Your task to perform on an android device: uninstall "File Manager" Image 0: 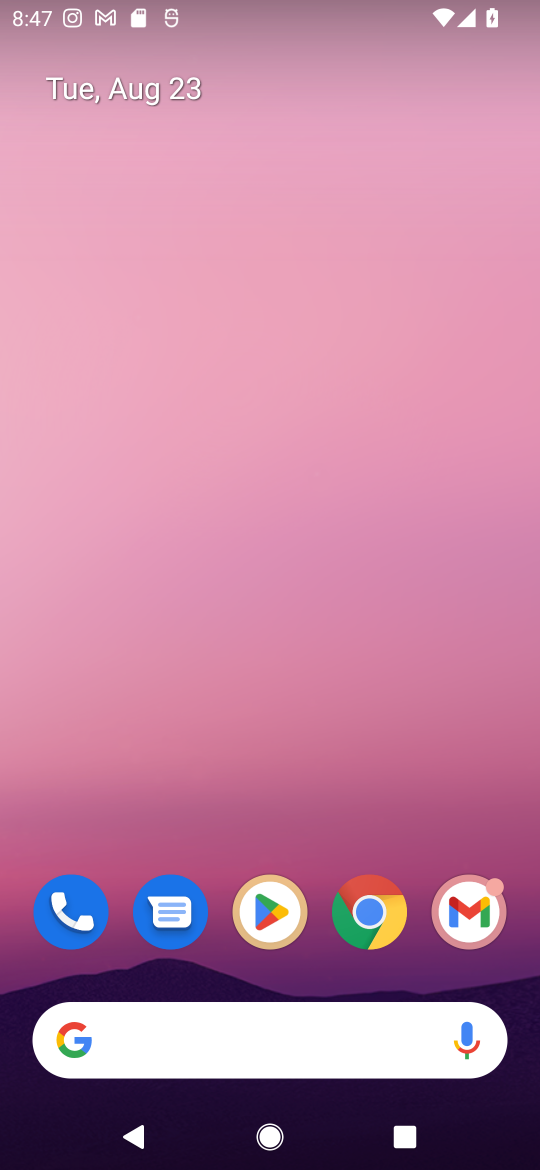
Step 0: click (267, 915)
Your task to perform on an android device: uninstall "File Manager" Image 1: 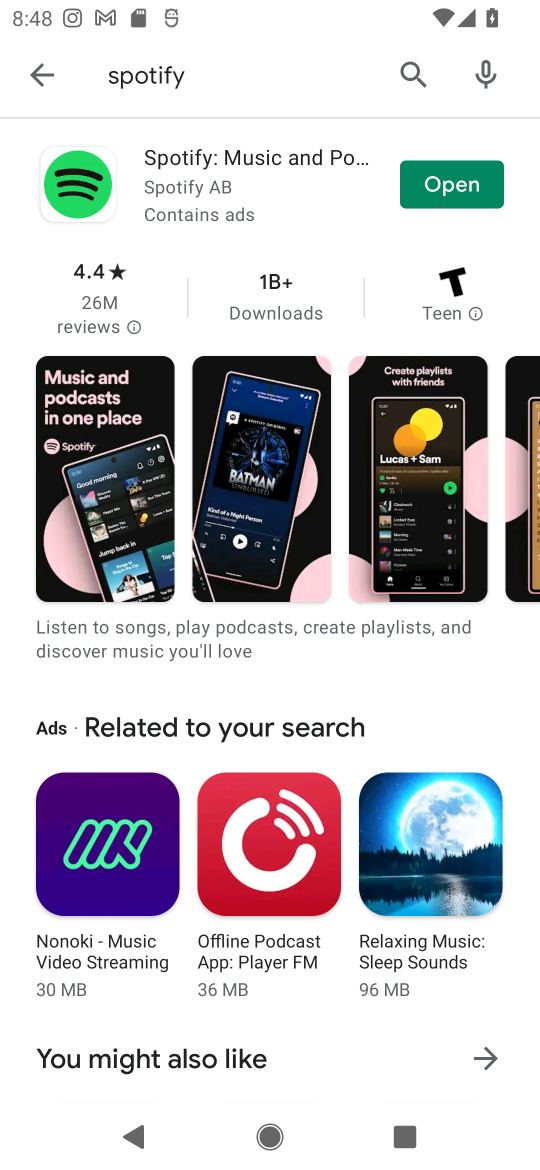
Step 1: click (399, 70)
Your task to perform on an android device: uninstall "File Manager" Image 2: 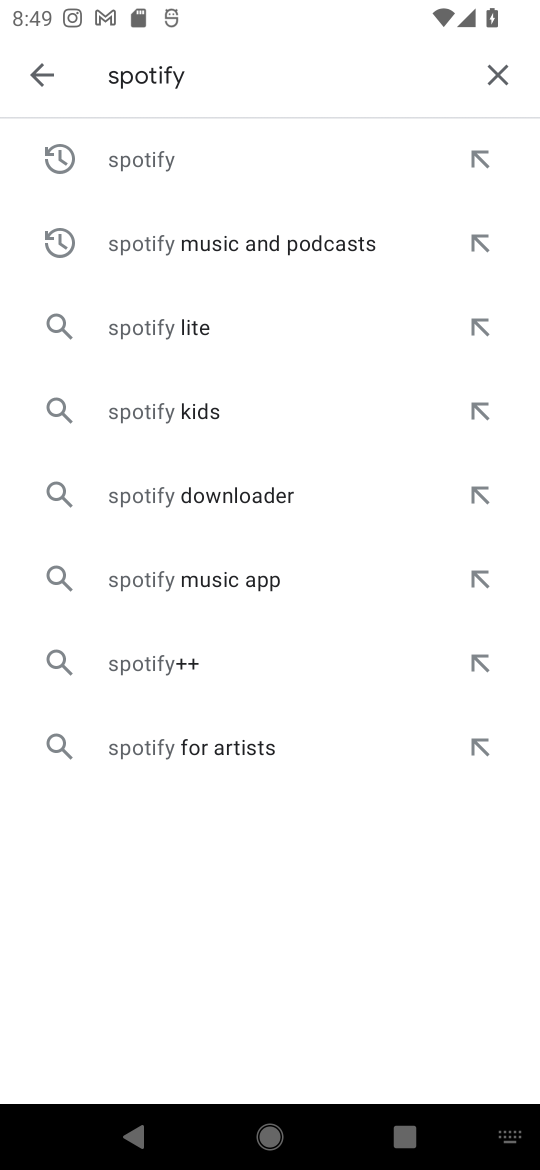
Step 2: click (502, 72)
Your task to perform on an android device: uninstall "File Manager" Image 3: 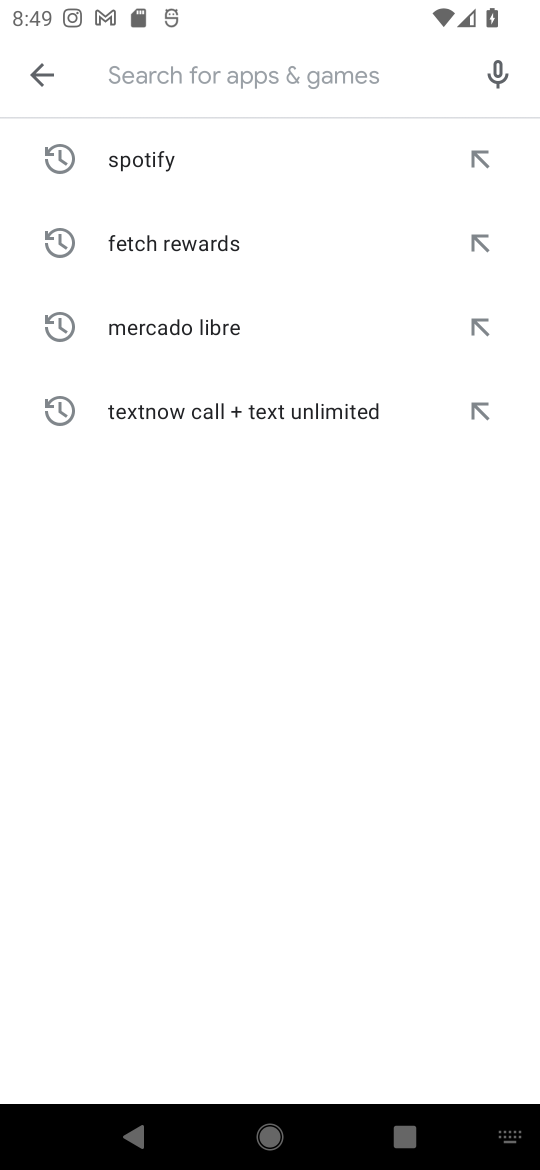
Step 3: type "File Manager"
Your task to perform on an android device: uninstall "File Manager" Image 4: 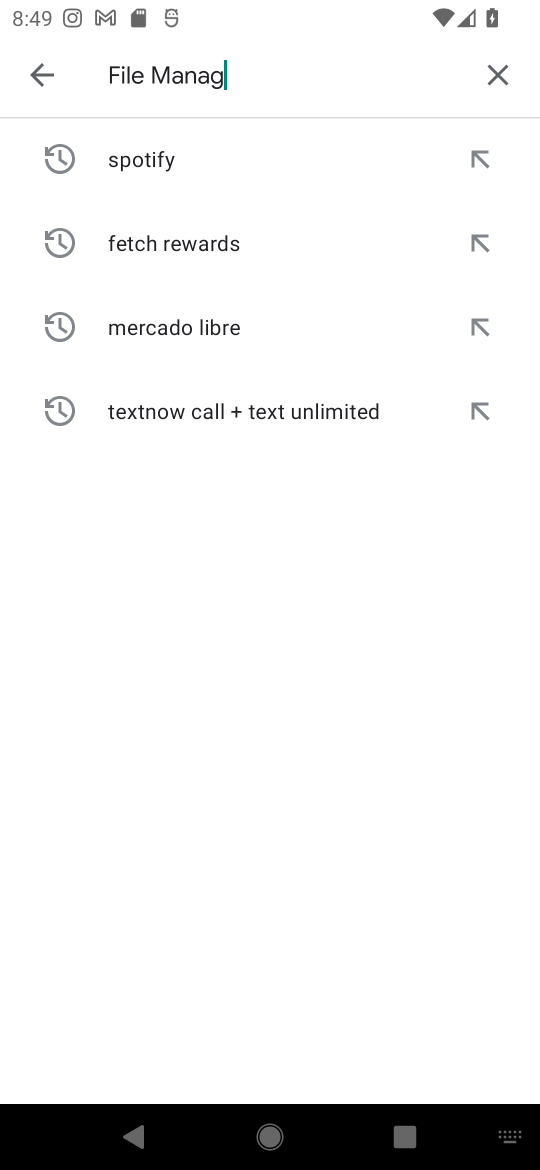
Step 4: type ""
Your task to perform on an android device: uninstall "File Manager" Image 5: 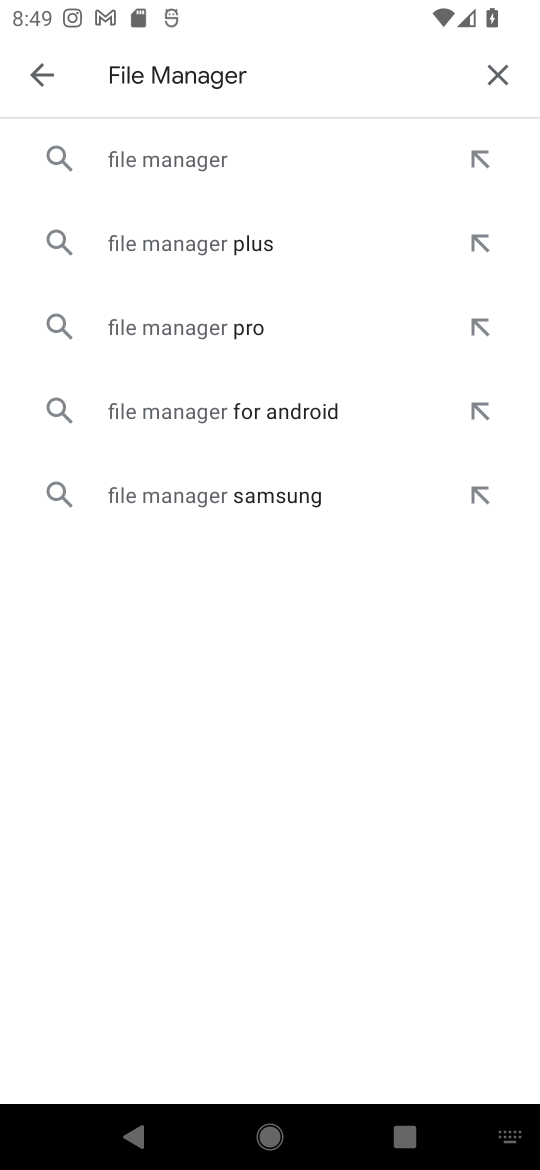
Step 5: click (202, 163)
Your task to perform on an android device: uninstall "File Manager" Image 6: 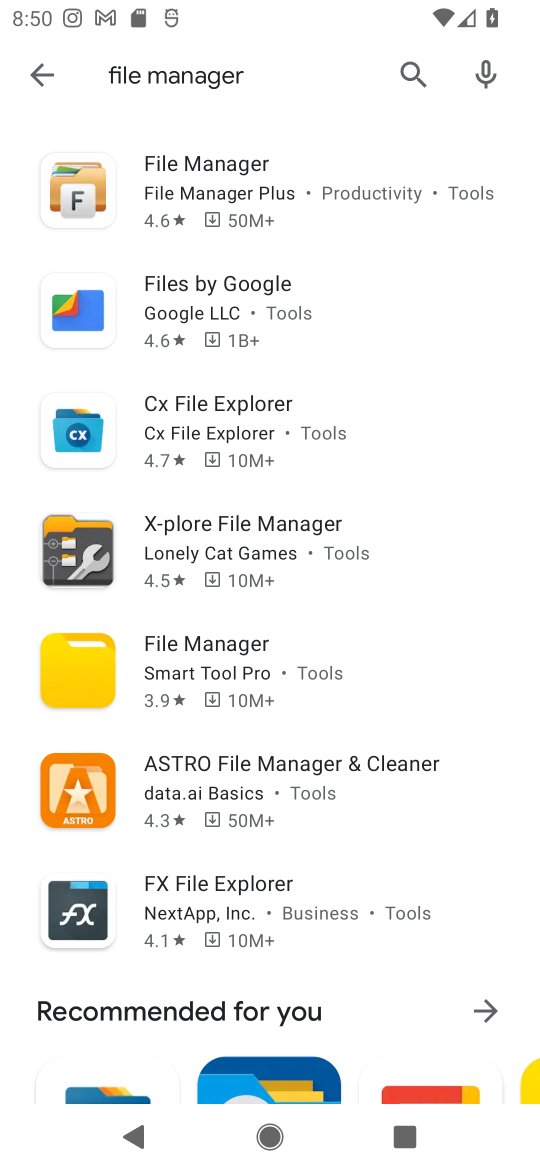
Step 6: click (200, 171)
Your task to perform on an android device: uninstall "File Manager" Image 7: 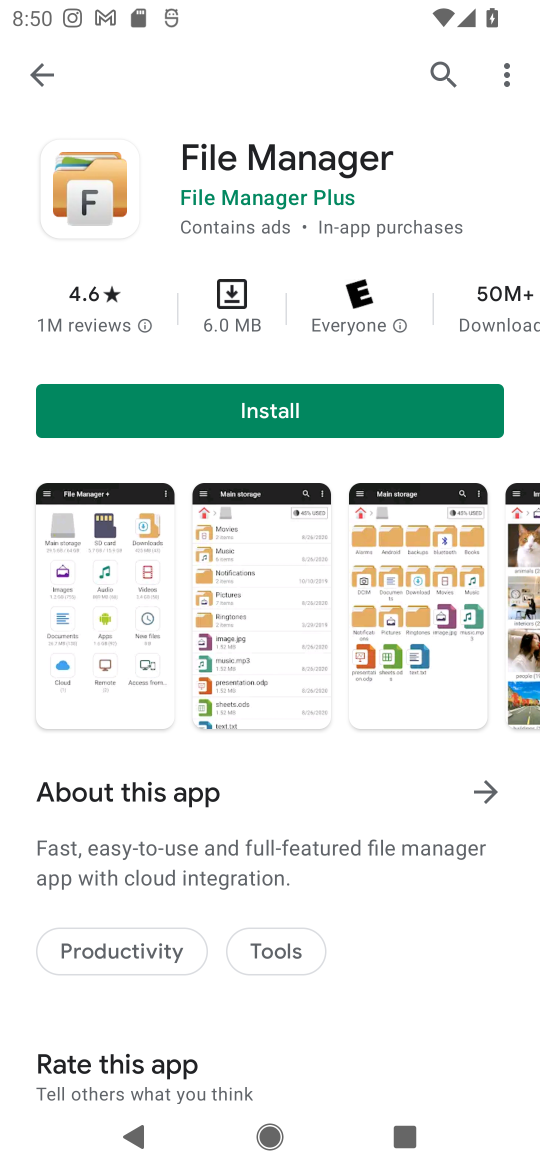
Step 7: task complete